Your task to perform on an android device: manage bookmarks in the chrome app Image 0: 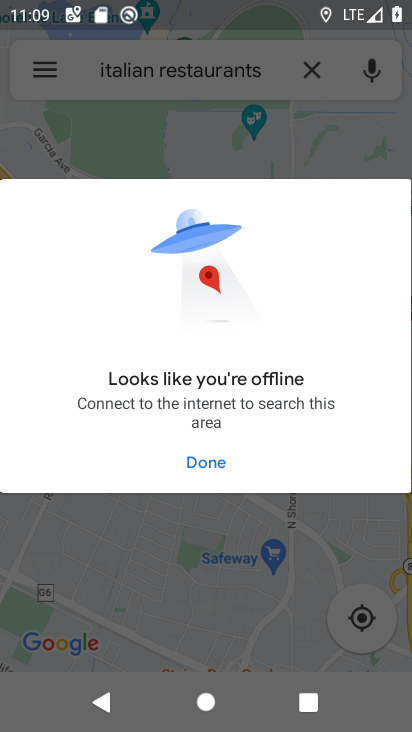
Step 0: press home button
Your task to perform on an android device: manage bookmarks in the chrome app Image 1: 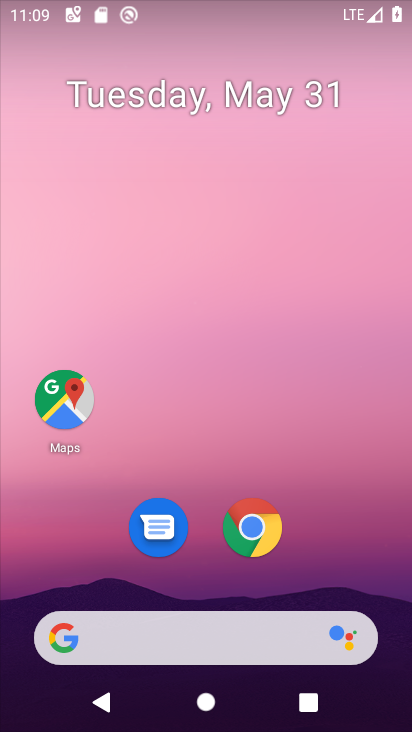
Step 1: click (254, 531)
Your task to perform on an android device: manage bookmarks in the chrome app Image 2: 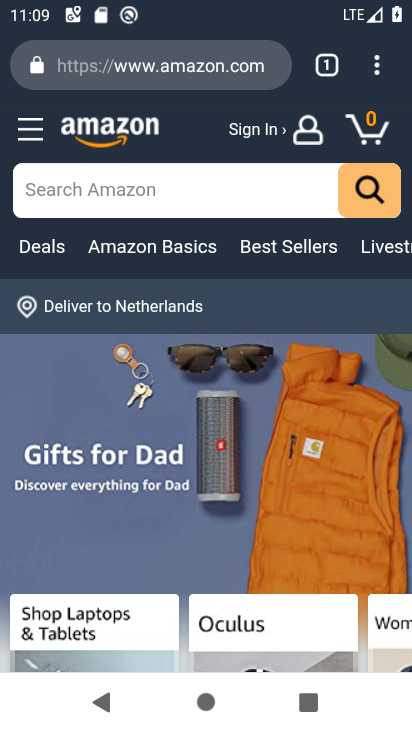
Step 2: click (377, 70)
Your task to perform on an android device: manage bookmarks in the chrome app Image 3: 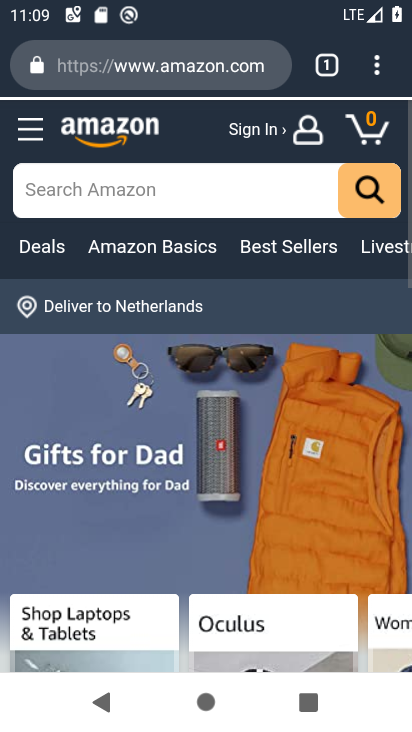
Step 3: click (381, 62)
Your task to perform on an android device: manage bookmarks in the chrome app Image 4: 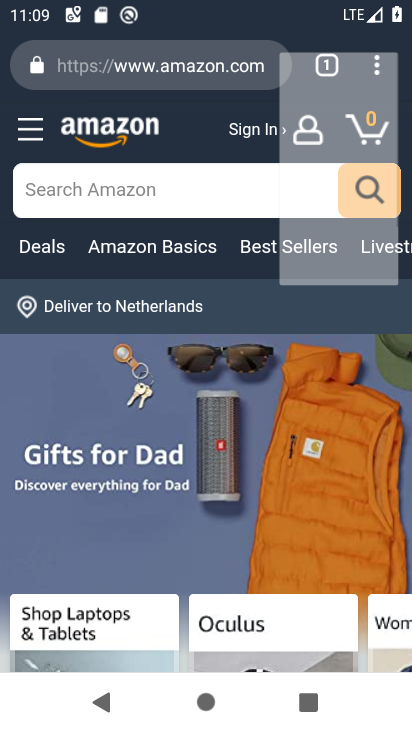
Step 4: click (381, 62)
Your task to perform on an android device: manage bookmarks in the chrome app Image 5: 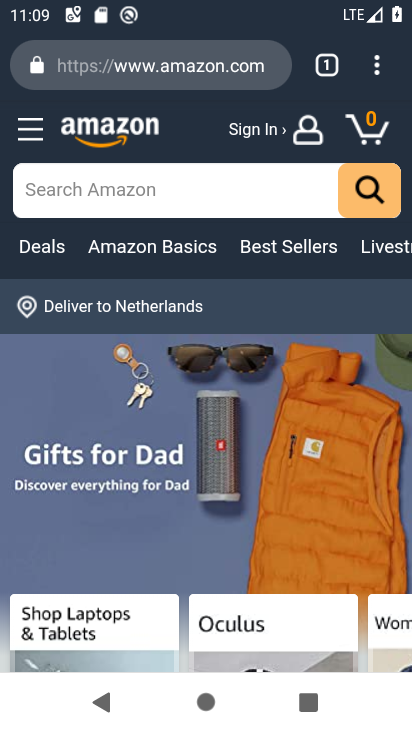
Step 5: click (377, 61)
Your task to perform on an android device: manage bookmarks in the chrome app Image 6: 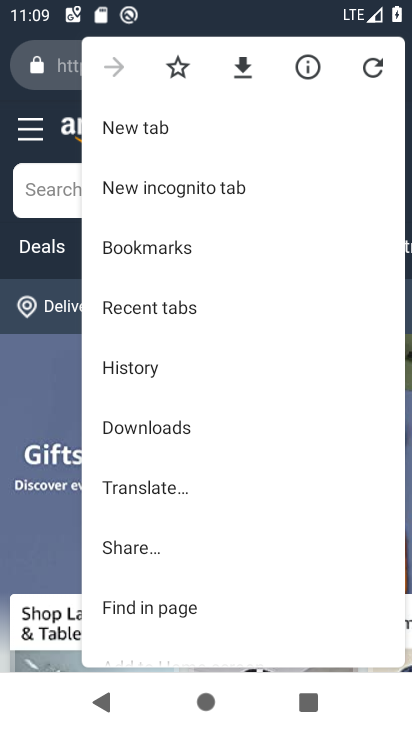
Step 6: click (136, 255)
Your task to perform on an android device: manage bookmarks in the chrome app Image 7: 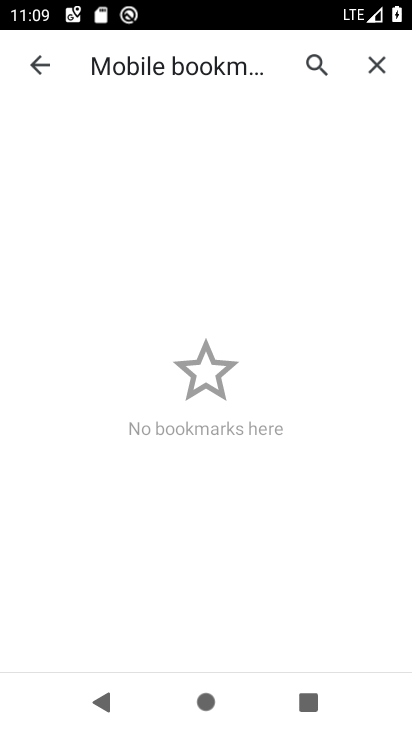
Step 7: task complete